Your task to perform on an android device: change the clock display to analog Image 0: 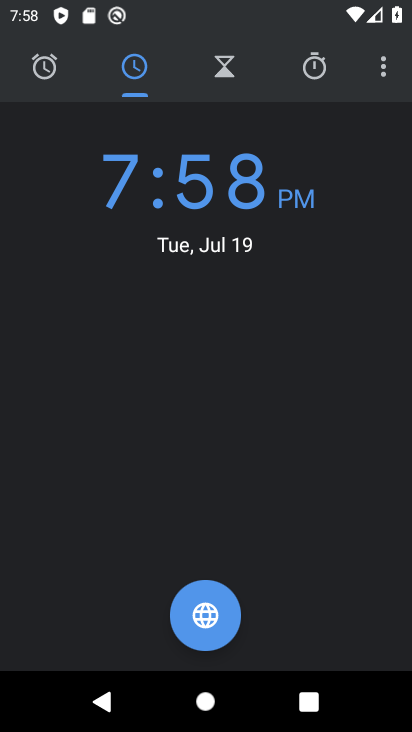
Step 0: press home button
Your task to perform on an android device: change the clock display to analog Image 1: 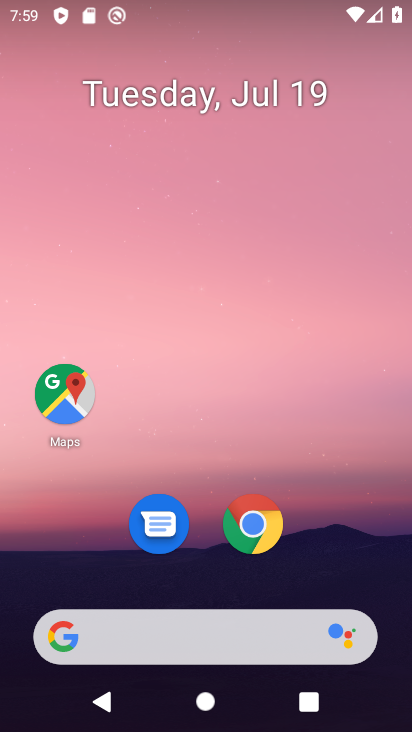
Step 1: drag from (197, 570) to (108, 44)
Your task to perform on an android device: change the clock display to analog Image 2: 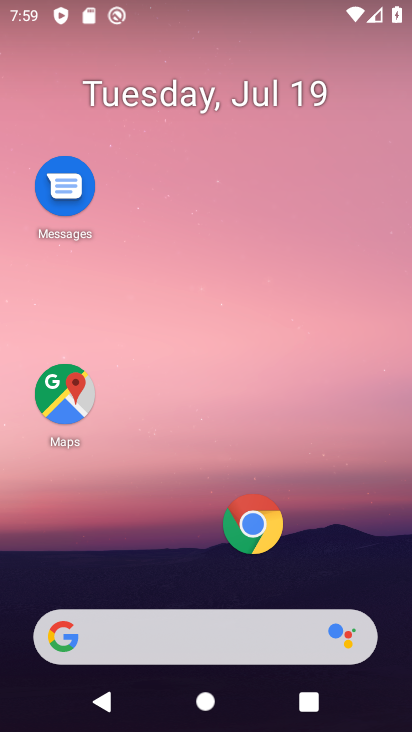
Step 2: drag from (216, 578) to (185, 4)
Your task to perform on an android device: change the clock display to analog Image 3: 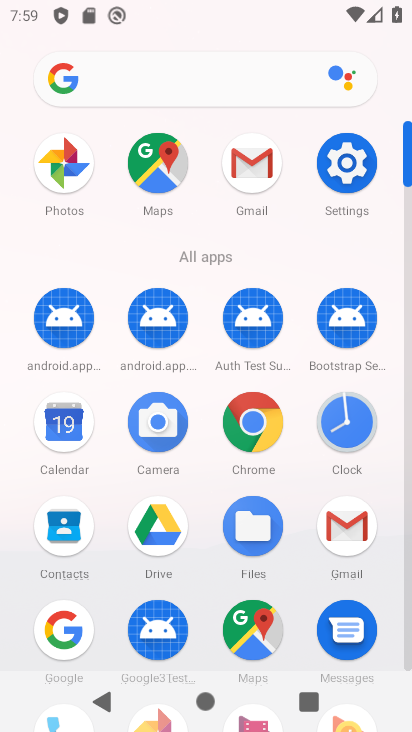
Step 3: click (340, 418)
Your task to perform on an android device: change the clock display to analog Image 4: 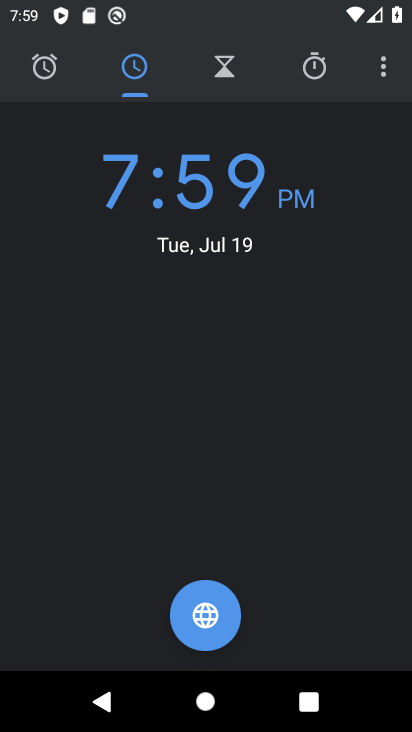
Step 4: click (382, 85)
Your task to perform on an android device: change the clock display to analog Image 5: 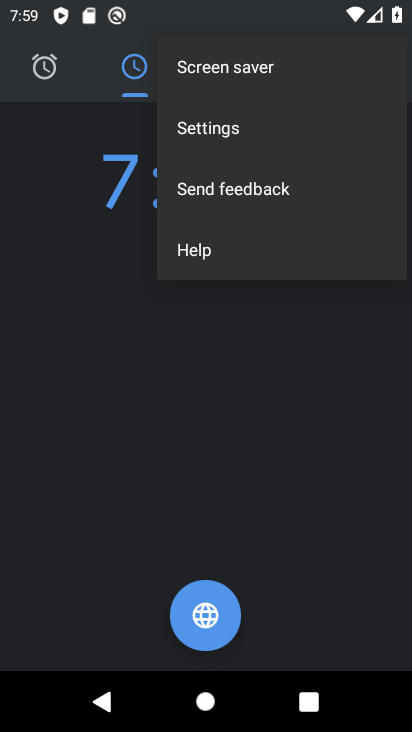
Step 5: click (228, 126)
Your task to perform on an android device: change the clock display to analog Image 6: 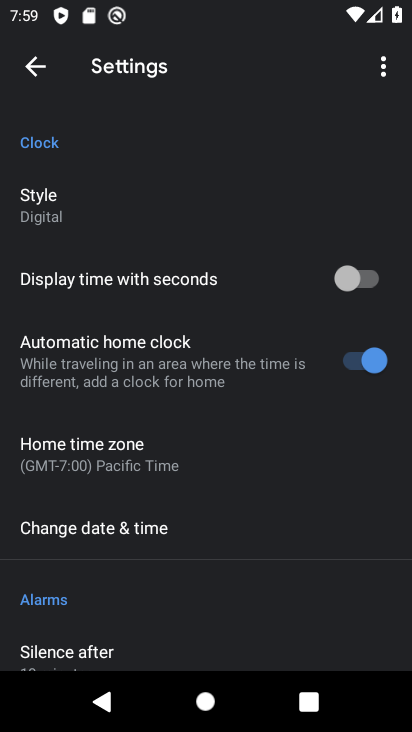
Step 6: click (75, 201)
Your task to perform on an android device: change the clock display to analog Image 7: 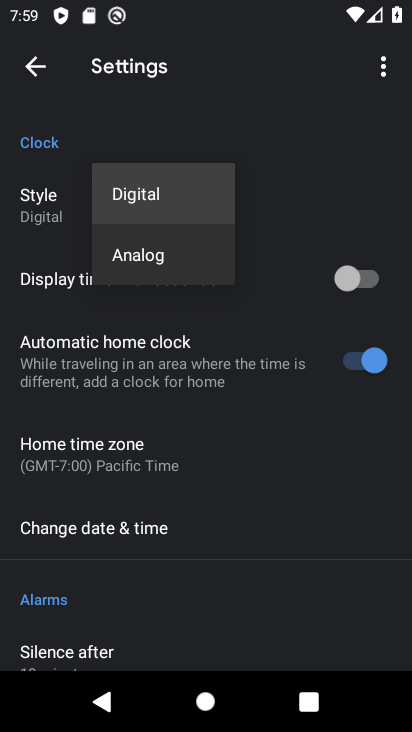
Step 7: click (127, 251)
Your task to perform on an android device: change the clock display to analog Image 8: 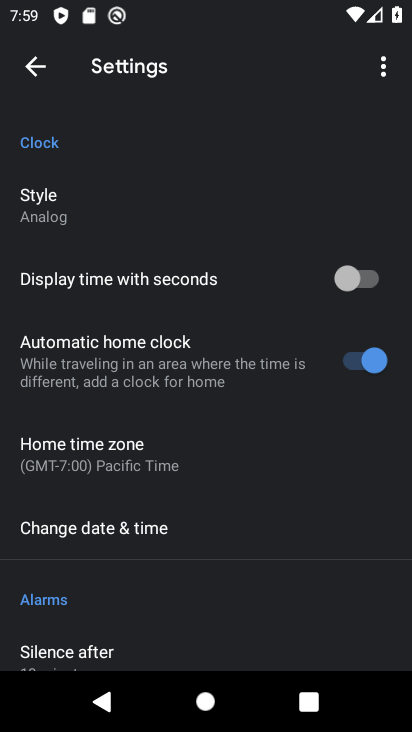
Step 8: task complete